Your task to perform on an android device: stop showing notifications on the lock screen Image 0: 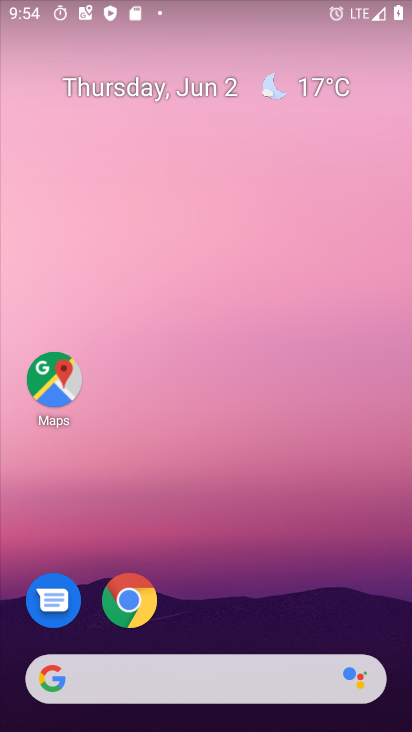
Step 0: drag from (339, 615) to (357, 166)
Your task to perform on an android device: stop showing notifications on the lock screen Image 1: 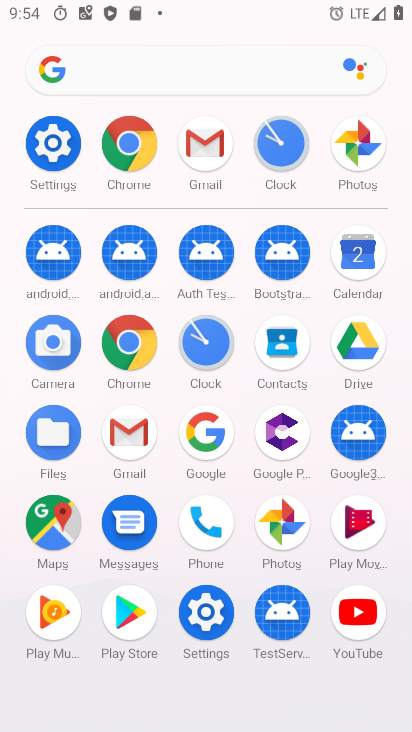
Step 1: click (219, 604)
Your task to perform on an android device: stop showing notifications on the lock screen Image 2: 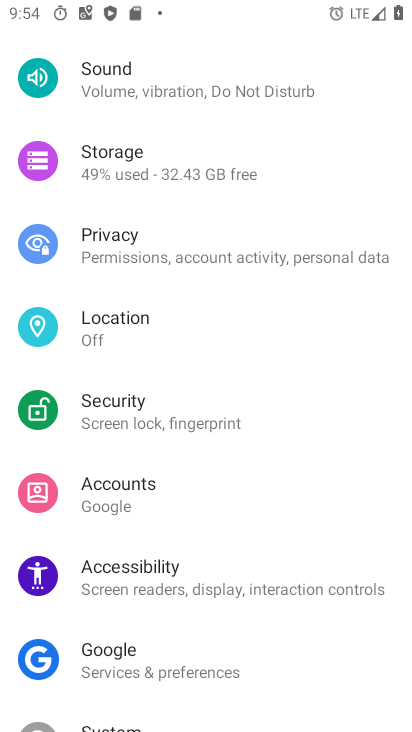
Step 2: drag from (341, 646) to (365, 525)
Your task to perform on an android device: stop showing notifications on the lock screen Image 3: 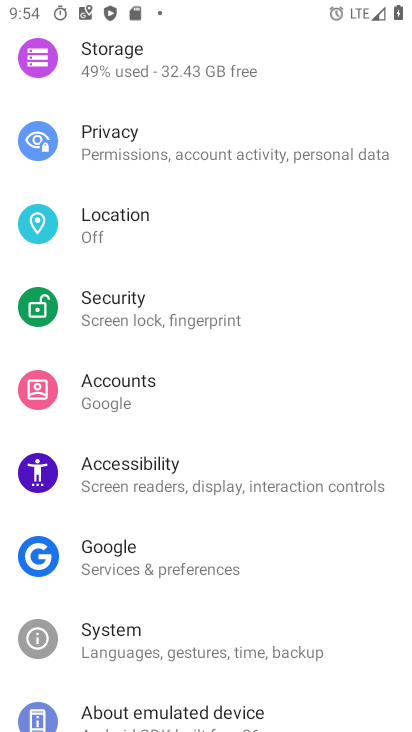
Step 3: drag from (387, 649) to (392, 571)
Your task to perform on an android device: stop showing notifications on the lock screen Image 4: 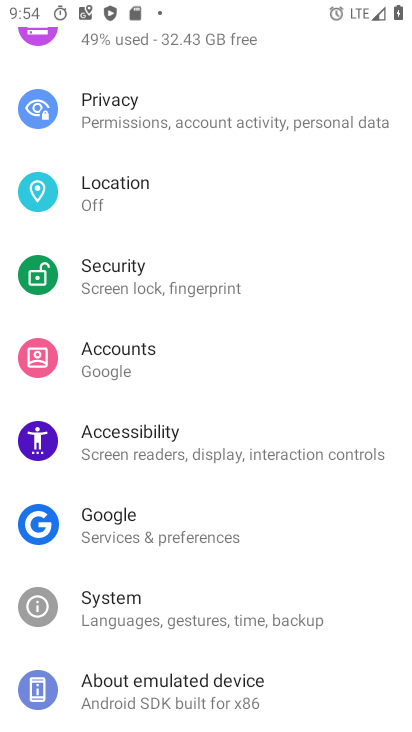
Step 4: click (370, 573)
Your task to perform on an android device: stop showing notifications on the lock screen Image 5: 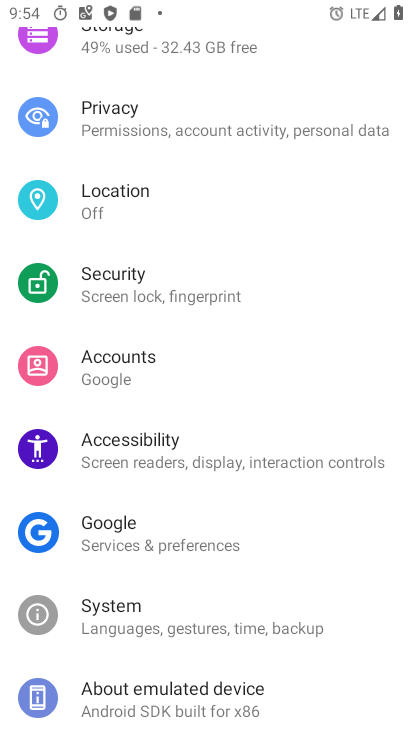
Step 5: drag from (382, 395) to (390, 487)
Your task to perform on an android device: stop showing notifications on the lock screen Image 6: 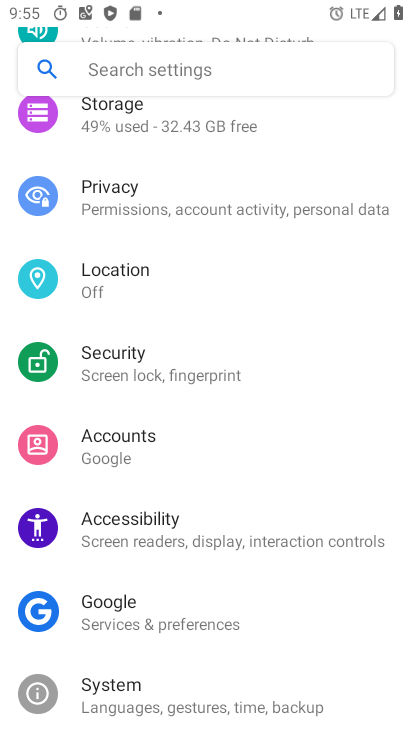
Step 6: drag from (390, 405) to (390, 466)
Your task to perform on an android device: stop showing notifications on the lock screen Image 7: 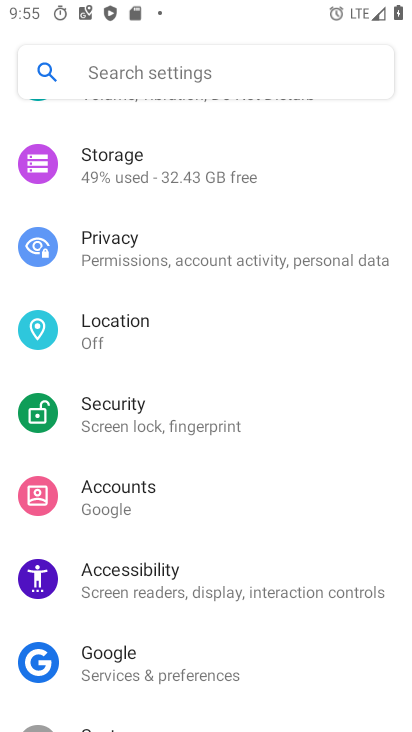
Step 7: drag from (379, 370) to (368, 431)
Your task to perform on an android device: stop showing notifications on the lock screen Image 8: 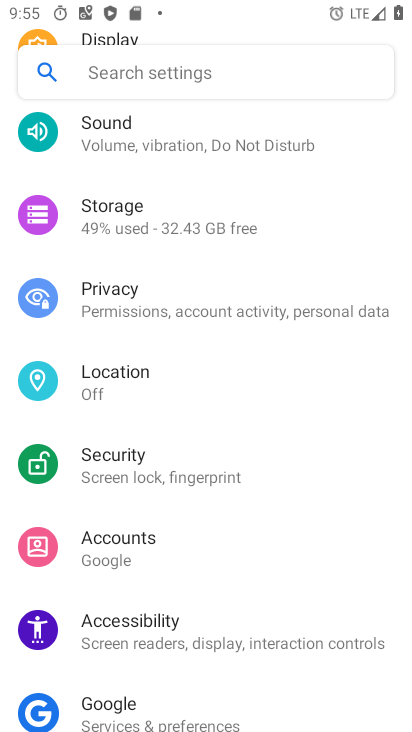
Step 8: drag from (376, 302) to (361, 344)
Your task to perform on an android device: stop showing notifications on the lock screen Image 9: 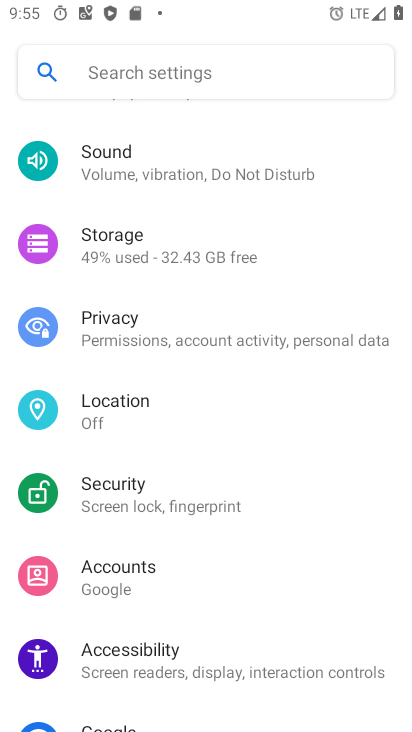
Step 9: drag from (346, 300) to (344, 420)
Your task to perform on an android device: stop showing notifications on the lock screen Image 10: 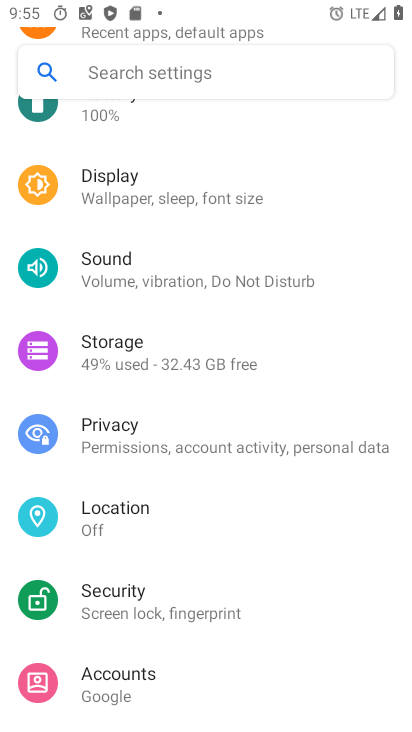
Step 10: drag from (367, 280) to (373, 375)
Your task to perform on an android device: stop showing notifications on the lock screen Image 11: 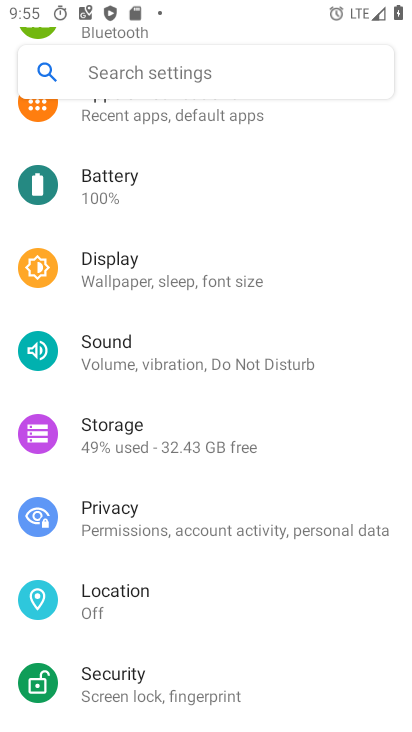
Step 11: drag from (375, 314) to (374, 392)
Your task to perform on an android device: stop showing notifications on the lock screen Image 12: 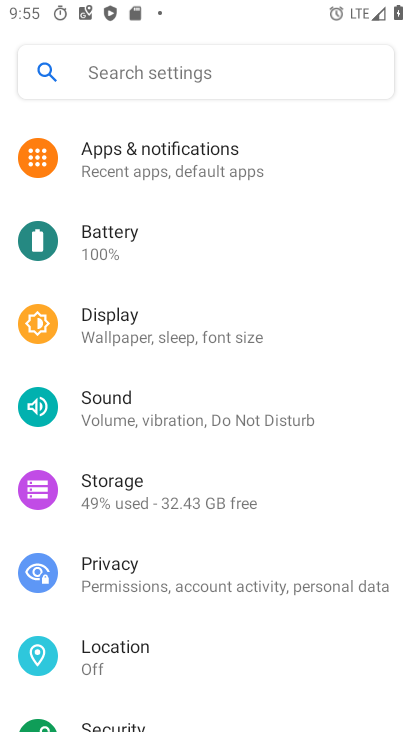
Step 12: drag from (377, 321) to (364, 428)
Your task to perform on an android device: stop showing notifications on the lock screen Image 13: 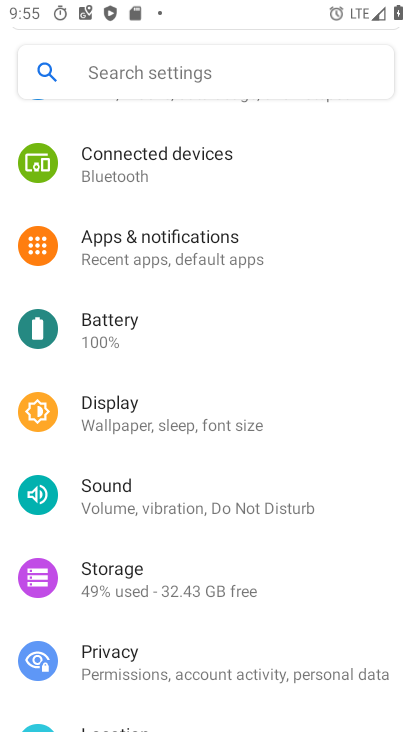
Step 13: drag from (342, 331) to (350, 435)
Your task to perform on an android device: stop showing notifications on the lock screen Image 14: 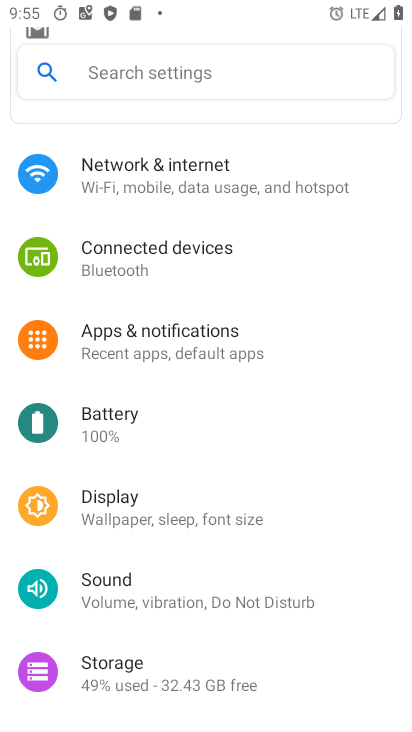
Step 14: click (231, 341)
Your task to perform on an android device: stop showing notifications on the lock screen Image 15: 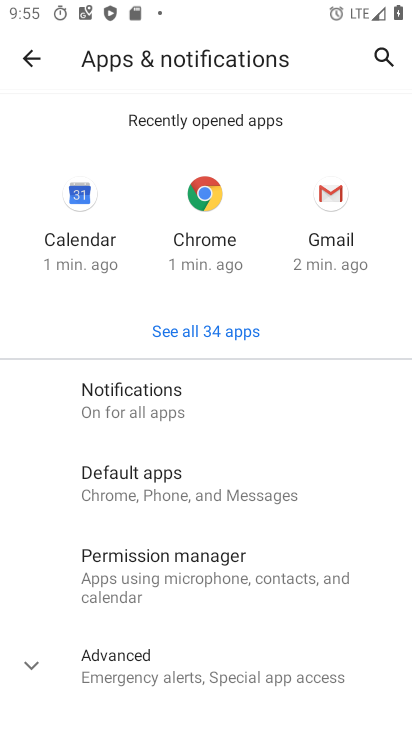
Step 15: click (187, 388)
Your task to perform on an android device: stop showing notifications on the lock screen Image 16: 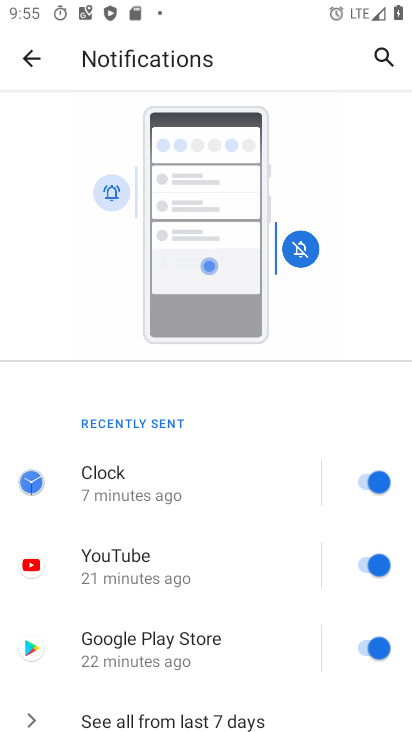
Step 16: drag from (245, 513) to (253, 347)
Your task to perform on an android device: stop showing notifications on the lock screen Image 17: 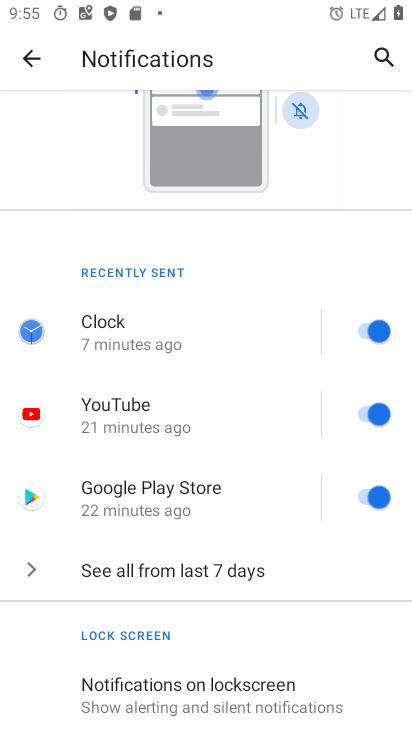
Step 17: drag from (282, 608) to (293, 441)
Your task to perform on an android device: stop showing notifications on the lock screen Image 18: 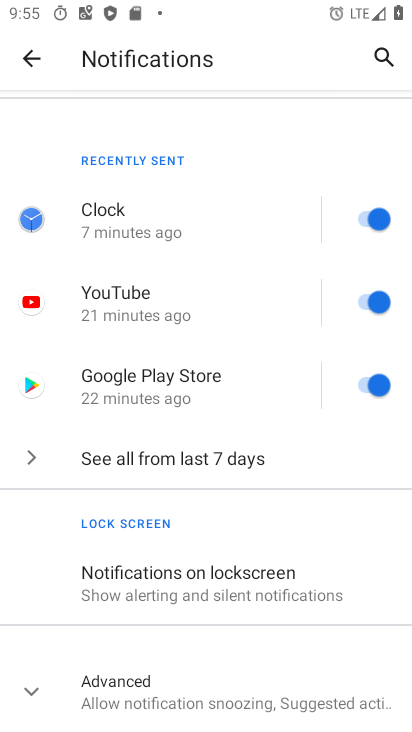
Step 18: click (301, 582)
Your task to perform on an android device: stop showing notifications on the lock screen Image 19: 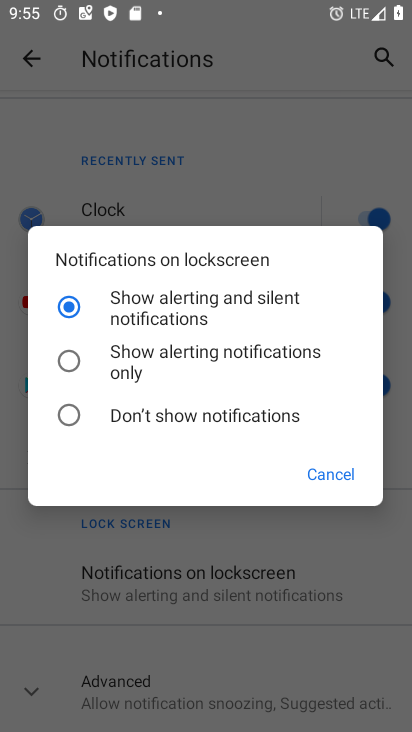
Step 19: click (140, 408)
Your task to perform on an android device: stop showing notifications on the lock screen Image 20: 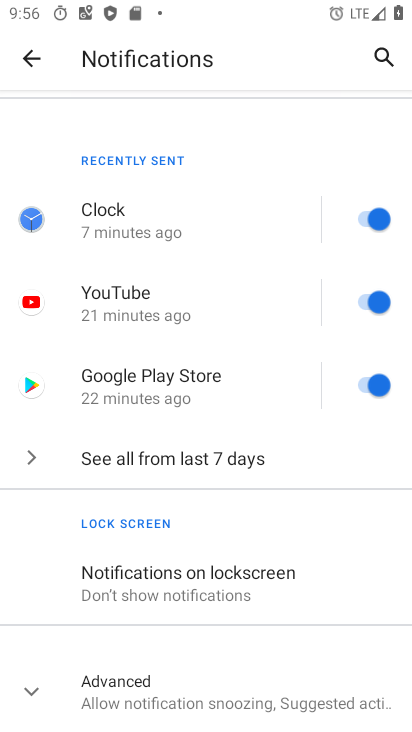
Step 20: task complete